Your task to perform on an android device: open app "Messages" (install if not already installed), go to login, and select forgot password Image 0: 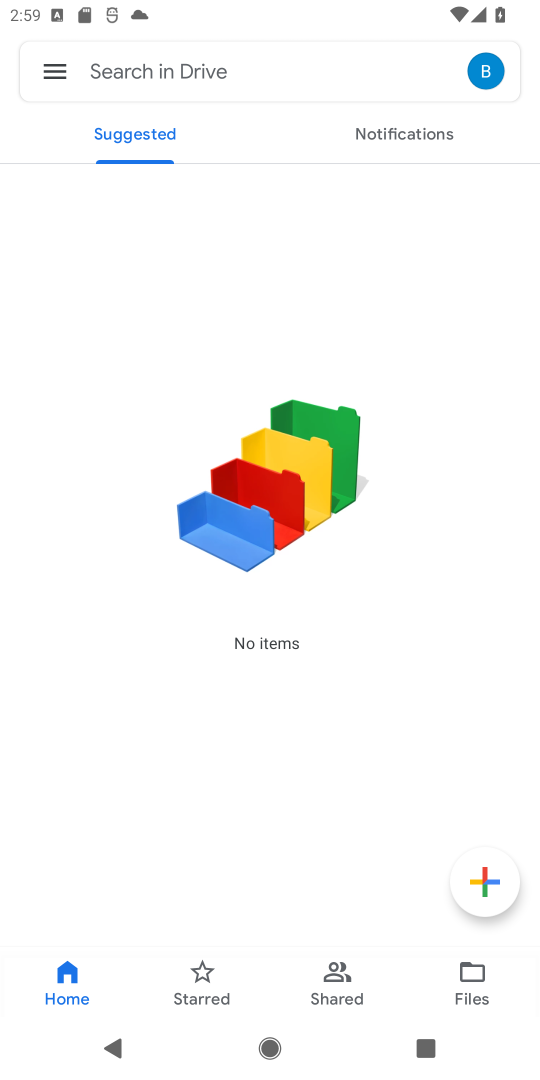
Step 0: press home button
Your task to perform on an android device: open app "Messages" (install if not already installed), go to login, and select forgot password Image 1: 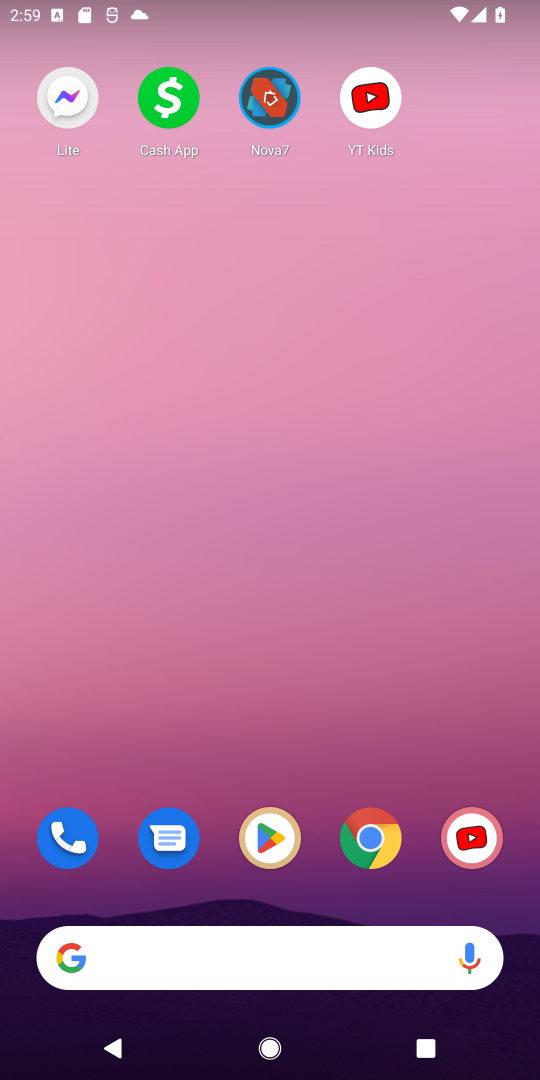
Step 1: click (161, 836)
Your task to perform on an android device: open app "Messages" (install if not already installed), go to login, and select forgot password Image 2: 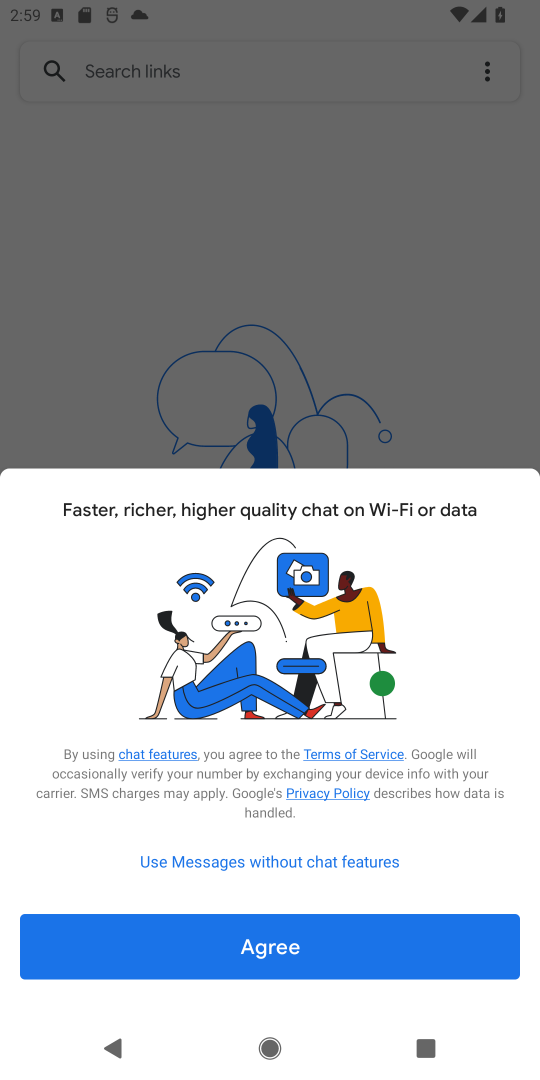
Step 2: click (213, 965)
Your task to perform on an android device: open app "Messages" (install if not already installed), go to login, and select forgot password Image 3: 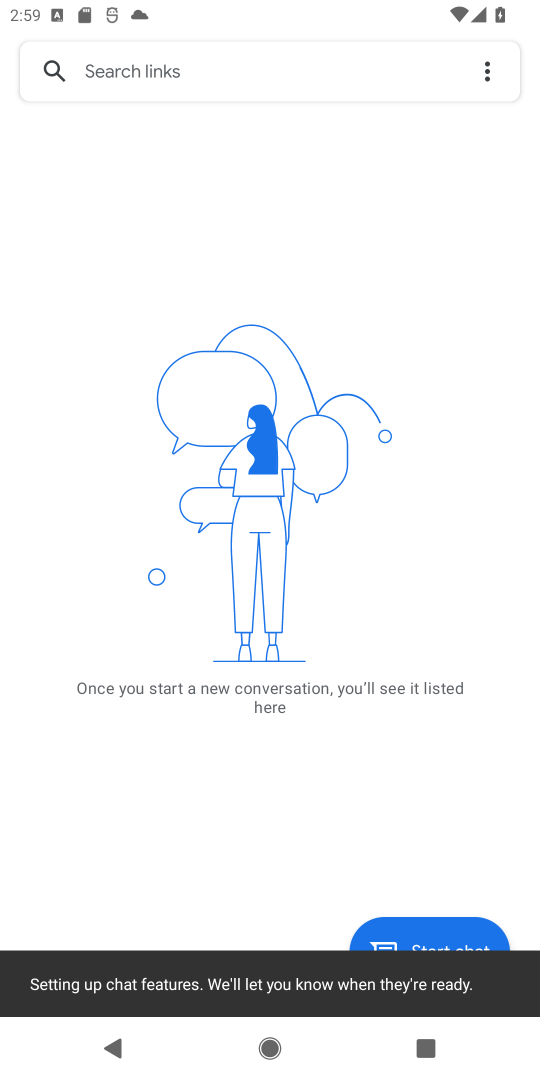
Step 3: click (495, 66)
Your task to perform on an android device: open app "Messages" (install if not already installed), go to login, and select forgot password Image 4: 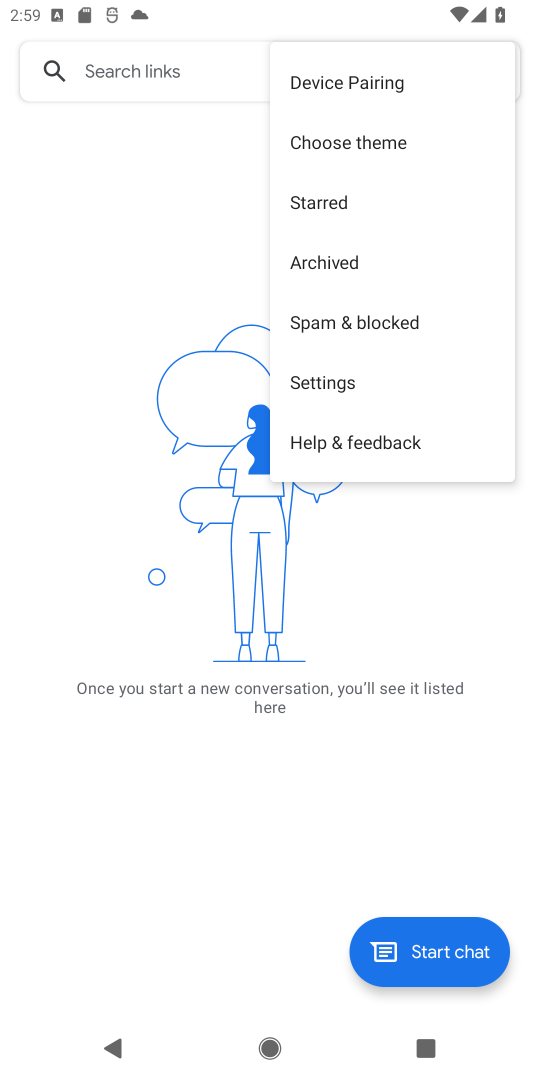
Step 4: click (360, 385)
Your task to perform on an android device: open app "Messages" (install if not already installed), go to login, and select forgot password Image 5: 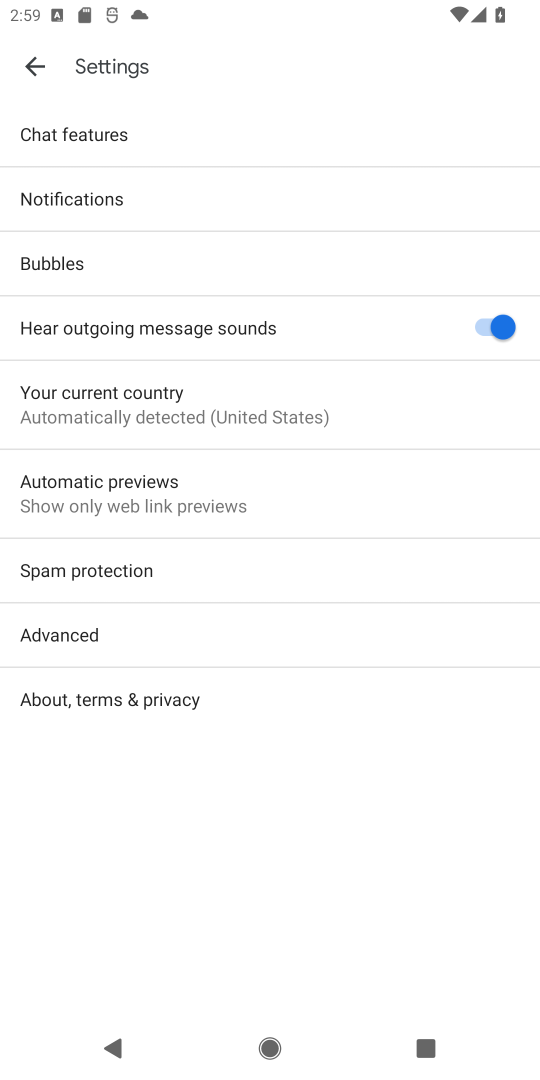
Step 5: click (40, 702)
Your task to perform on an android device: open app "Messages" (install if not already installed), go to login, and select forgot password Image 6: 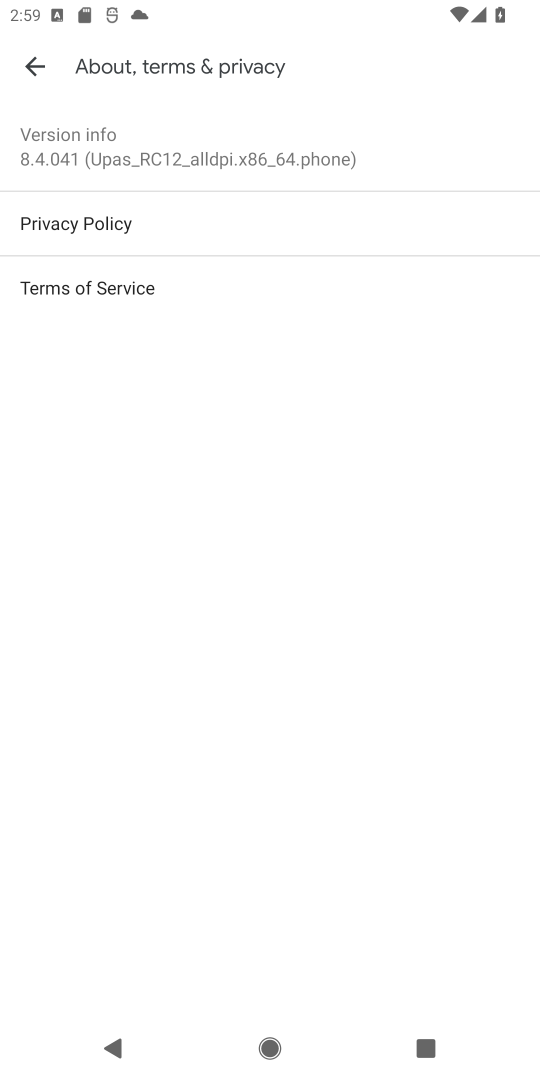
Step 6: task complete